Your task to perform on an android device: see tabs open on other devices in the chrome app Image 0: 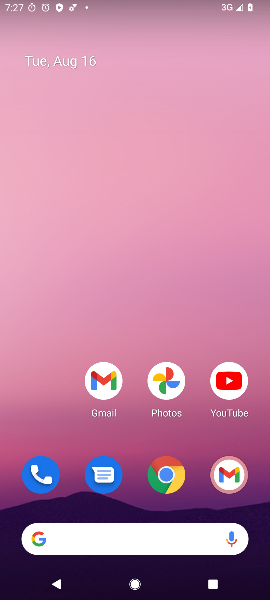
Step 0: drag from (199, 488) to (87, 41)
Your task to perform on an android device: see tabs open on other devices in the chrome app Image 1: 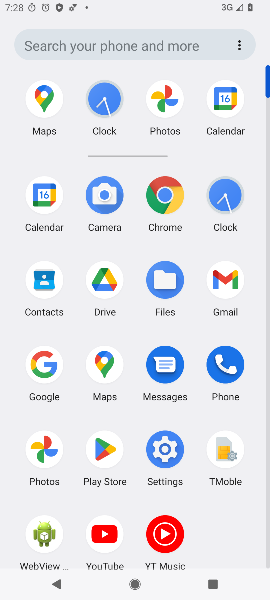
Step 1: click (164, 195)
Your task to perform on an android device: see tabs open on other devices in the chrome app Image 2: 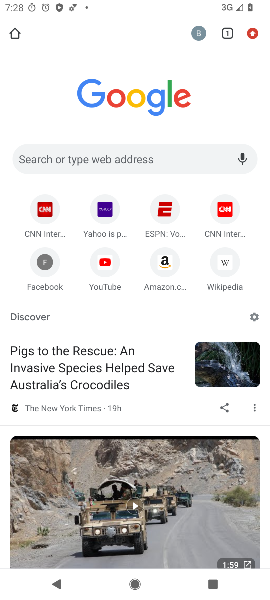
Step 2: task complete